Your task to perform on an android device: Show me popular games on the Play Store Image 0: 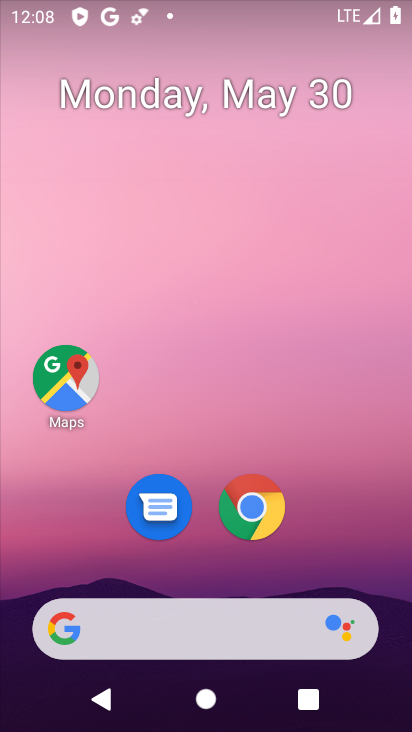
Step 0: drag from (320, 563) to (281, 95)
Your task to perform on an android device: Show me popular games on the Play Store Image 1: 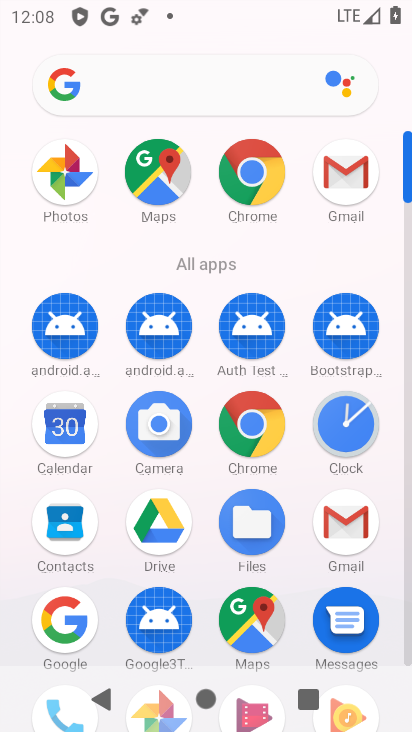
Step 1: drag from (288, 287) to (282, 28)
Your task to perform on an android device: Show me popular games on the Play Store Image 2: 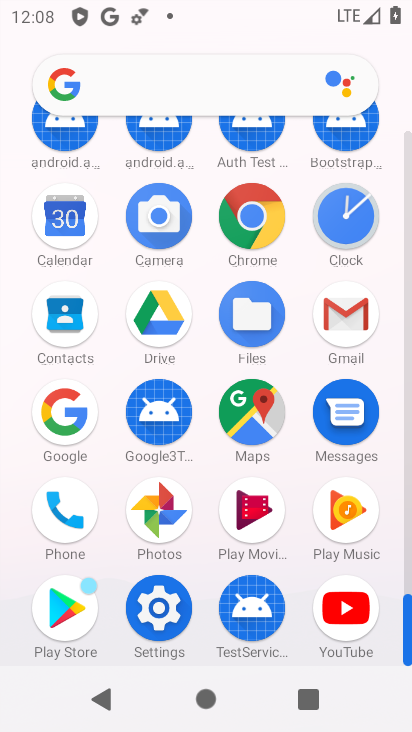
Step 2: click (59, 605)
Your task to perform on an android device: Show me popular games on the Play Store Image 3: 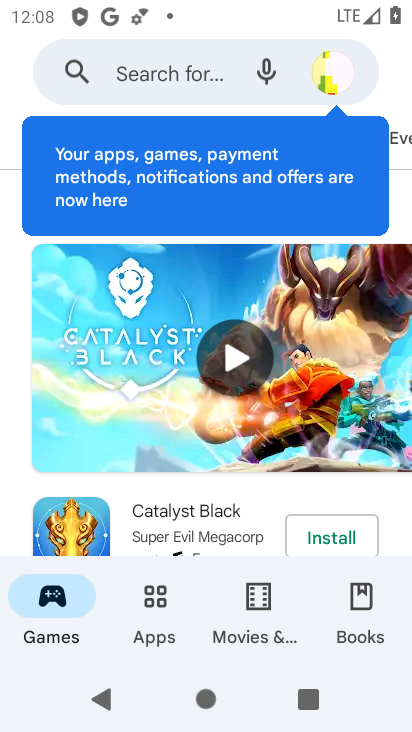
Step 3: click (133, 76)
Your task to perform on an android device: Show me popular games on the Play Store Image 4: 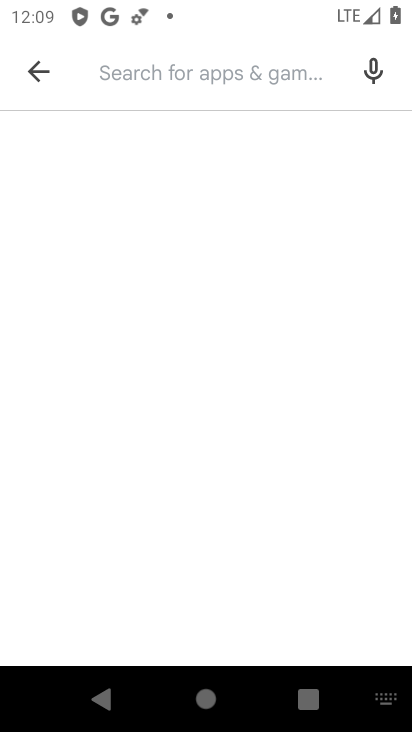
Step 4: type " popular games"
Your task to perform on an android device: Show me popular games on the Play Store Image 5: 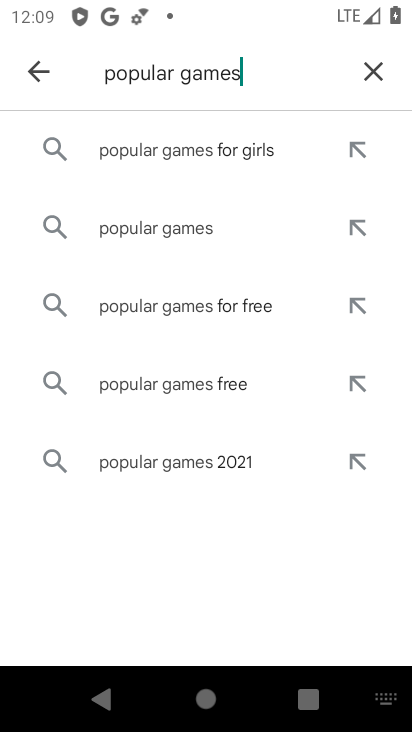
Step 5: click (107, 147)
Your task to perform on an android device: Show me popular games on the Play Store Image 6: 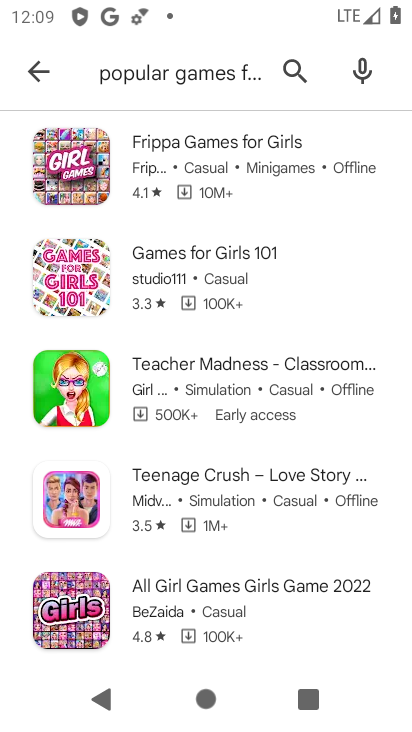
Step 6: task complete